Your task to perform on an android device: refresh tabs in the chrome app Image 0: 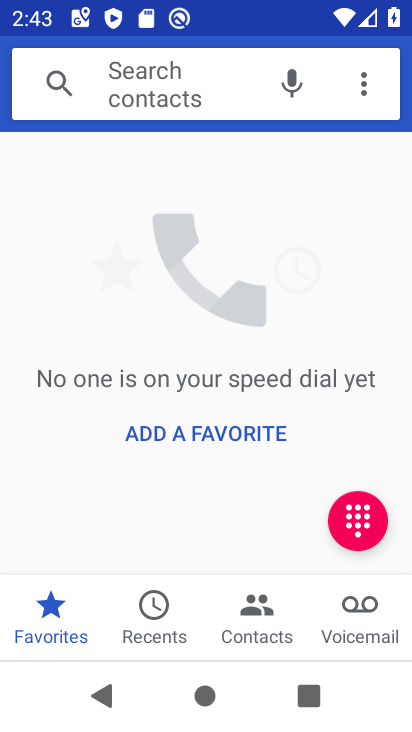
Step 0: press back button
Your task to perform on an android device: refresh tabs in the chrome app Image 1: 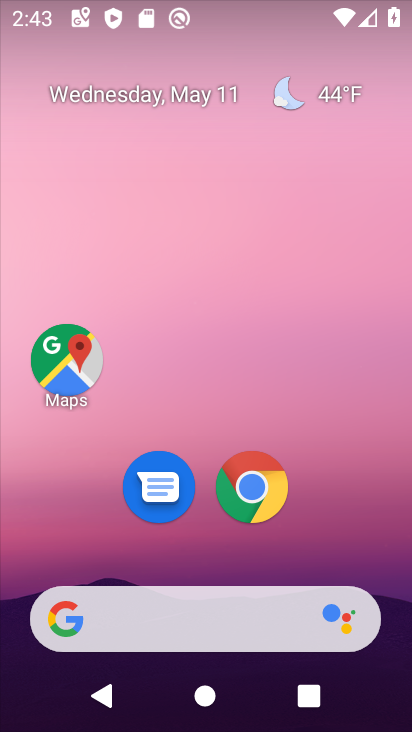
Step 1: click (253, 482)
Your task to perform on an android device: refresh tabs in the chrome app Image 2: 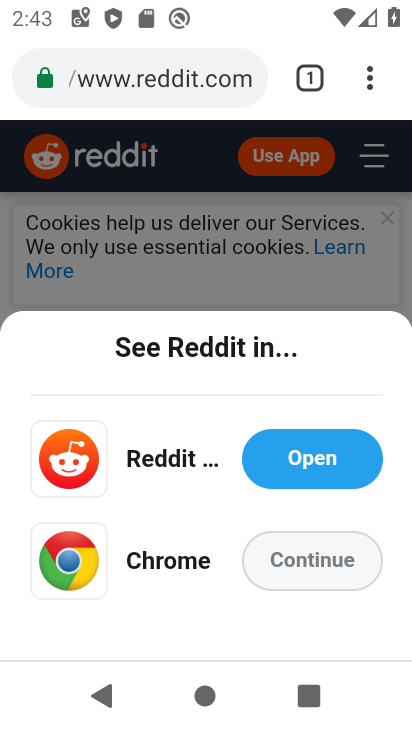
Step 2: click (364, 65)
Your task to perform on an android device: refresh tabs in the chrome app Image 3: 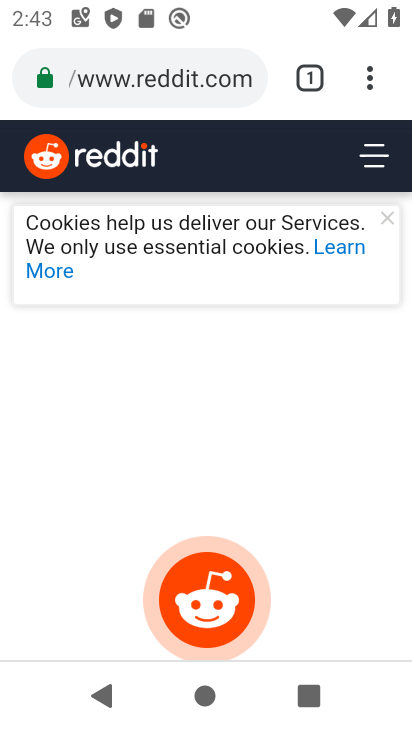
Step 3: task complete